Your task to perform on an android device: find photos in the google photos app Image 0: 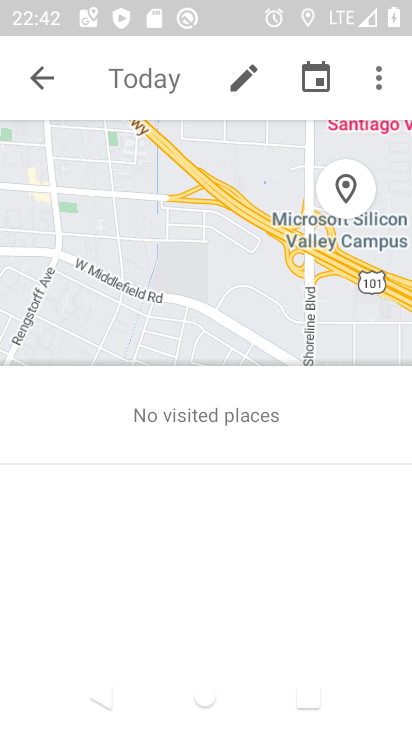
Step 0: press back button
Your task to perform on an android device: find photos in the google photos app Image 1: 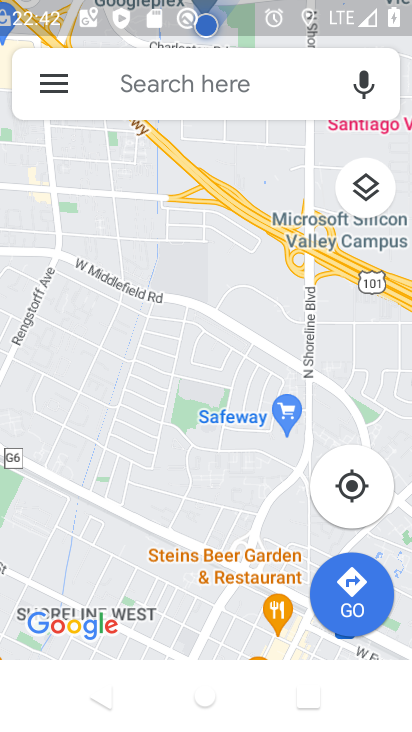
Step 1: press back button
Your task to perform on an android device: find photos in the google photos app Image 2: 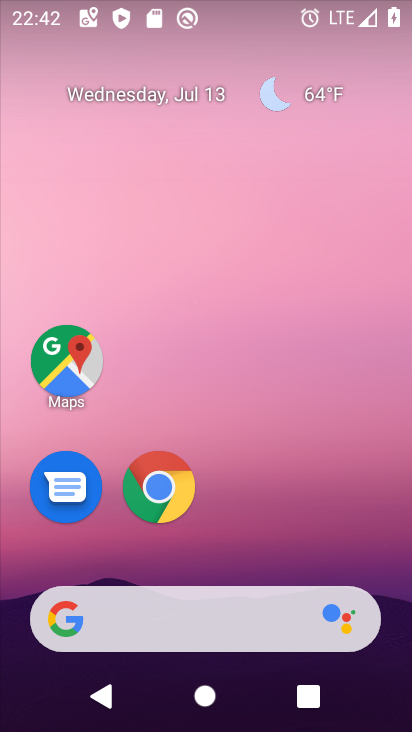
Step 2: drag from (205, 576) to (251, 9)
Your task to perform on an android device: find photos in the google photos app Image 3: 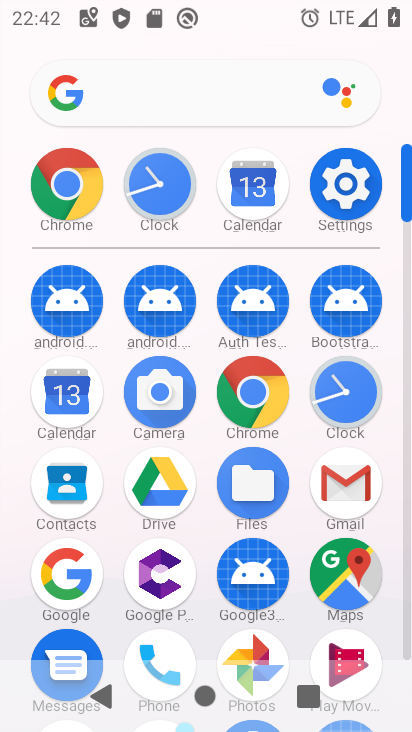
Step 3: click (252, 646)
Your task to perform on an android device: find photos in the google photos app Image 4: 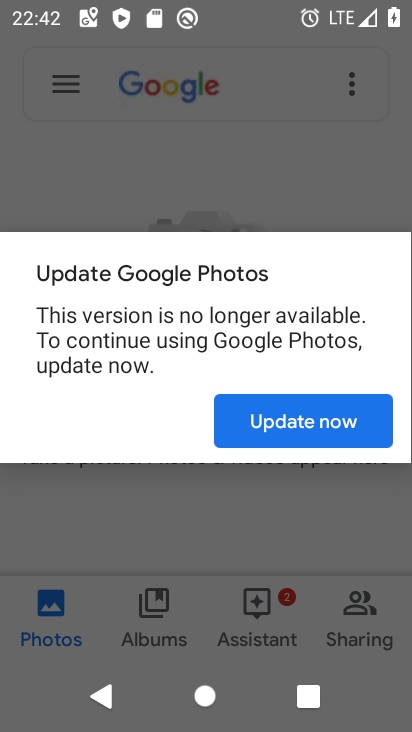
Step 4: click (292, 409)
Your task to perform on an android device: find photos in the google photos app Image 5: 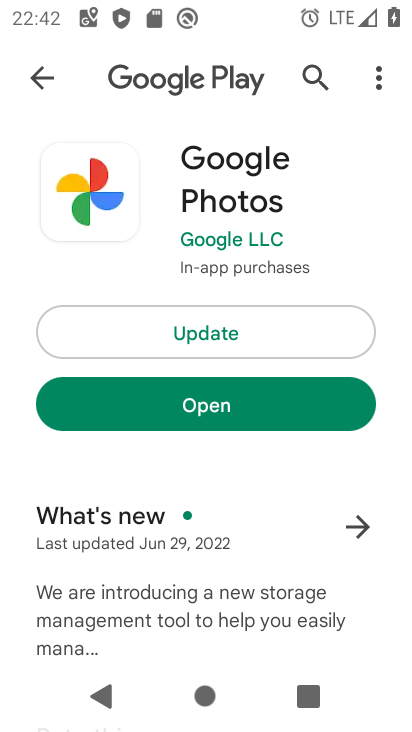
Step 5: click (215, 406)
Your task to perform on an android device: find photos in the google photos app Image 6: 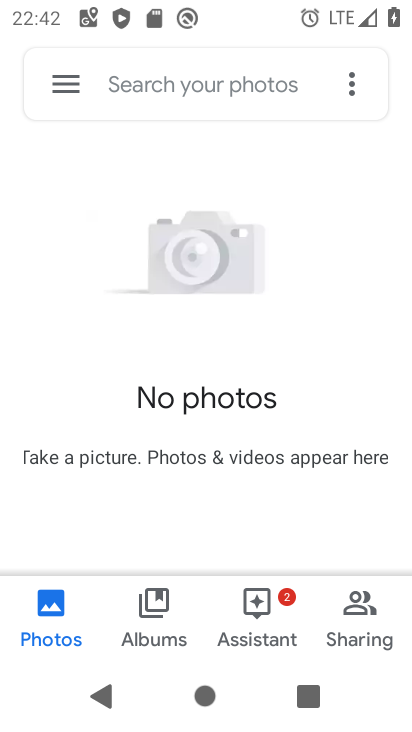
Step 6: click (43, 614)
Your task to perform on an android device: find photos in the google photos app Image 7: 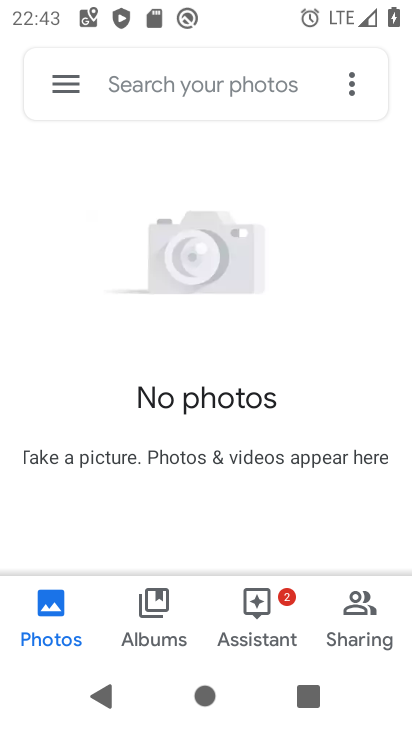
Step 7: task complete